Your task to perform on an android device: change text size in settings app Image 0: 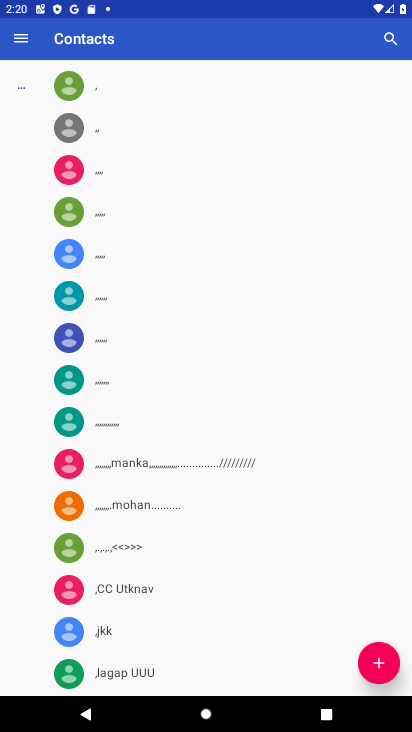
Step 0: press home button
Your task to perform on an android device: change text size in settings app Image 1: 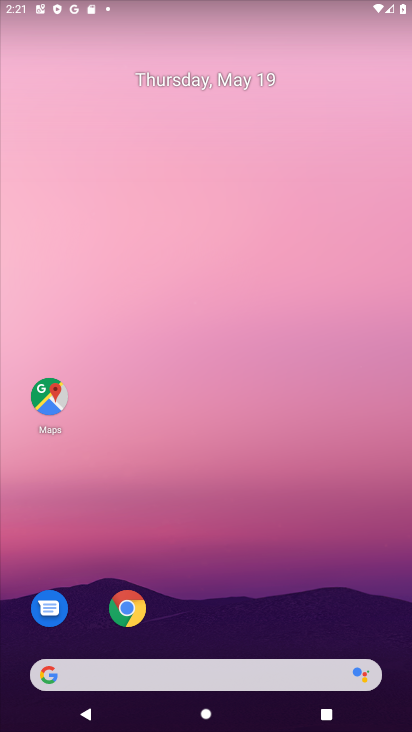
Step 1: drag from (241, 604) to (319, 6)
Your task to perform on an android device: change text size in settings app Image 2: 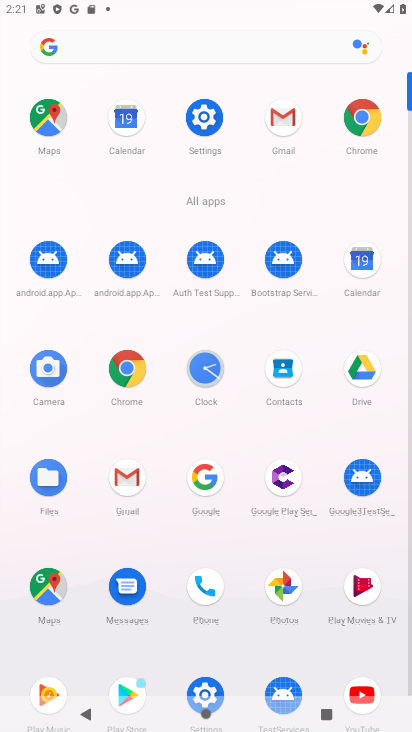
Step 2: click (213, 155)
Your task to perform on an android device: change text size in settings app Image 3: 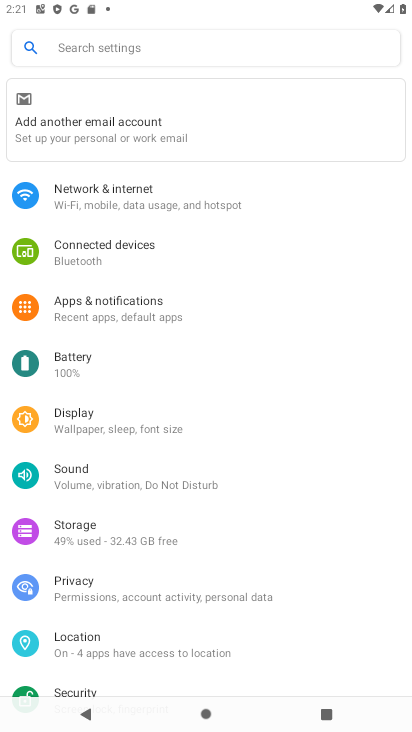
Step 3: click (165, 412)
Your task to perform on an android device: change text size in settings app Image 4: 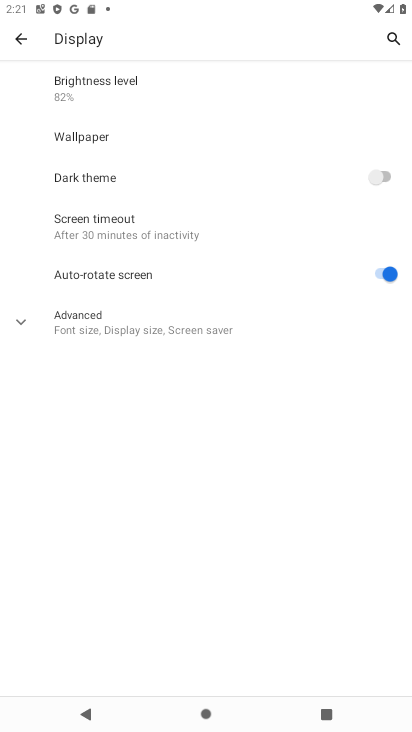
Step 4: click (196, 335)
Your task to perform on an android device: change text size in settings app Image 5: 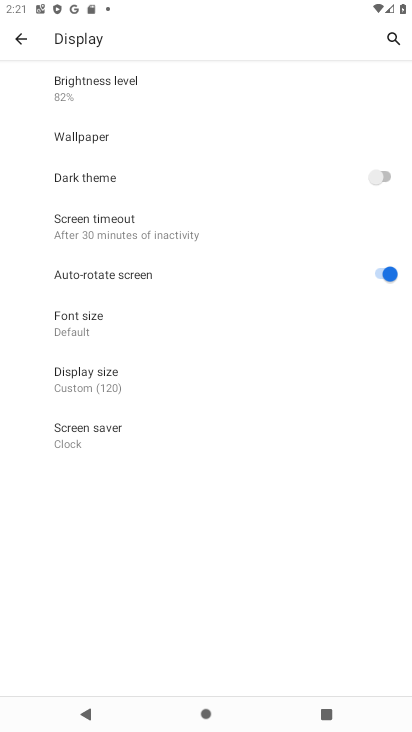
Step 5: click (196, 335)
Your task to perform on an android device: change text size in settings app Image 6: 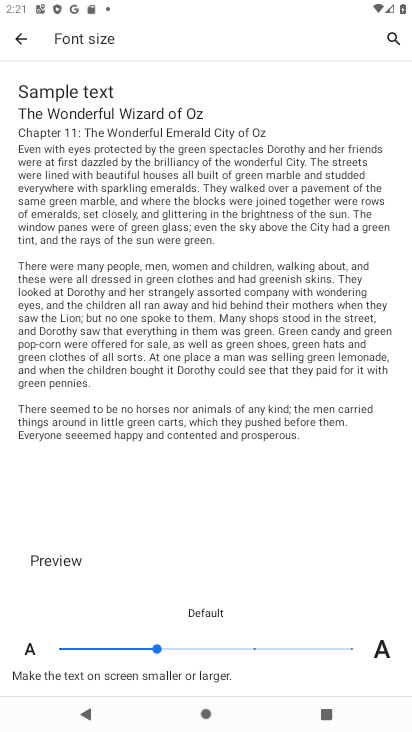
Step 6: click (220, 656)
Your task to perform on an android device: change text size in settings app Image 7: 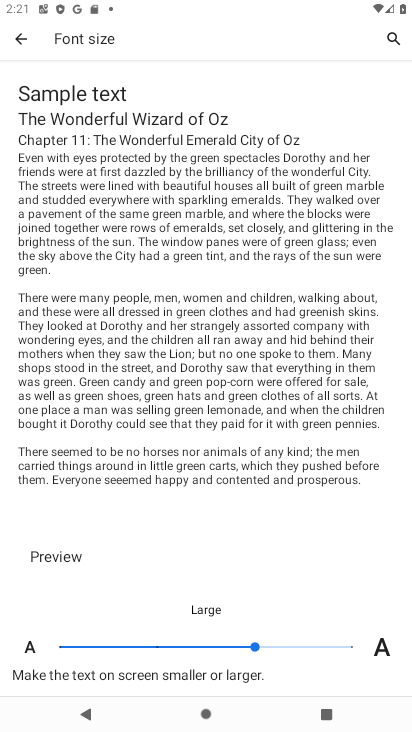
Step 7: task complete